Your task to perform on an android device: What's the news in Ecuador? Image 0: 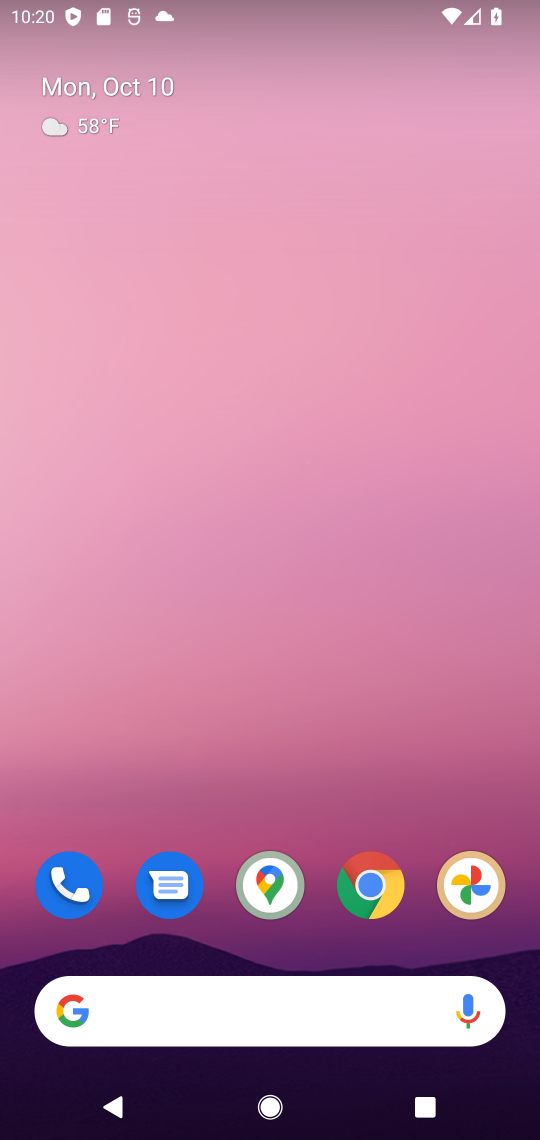
Step 0: click (367, 880)
Your task to perform on an android device: What's the news in Ecuador? Image 1: 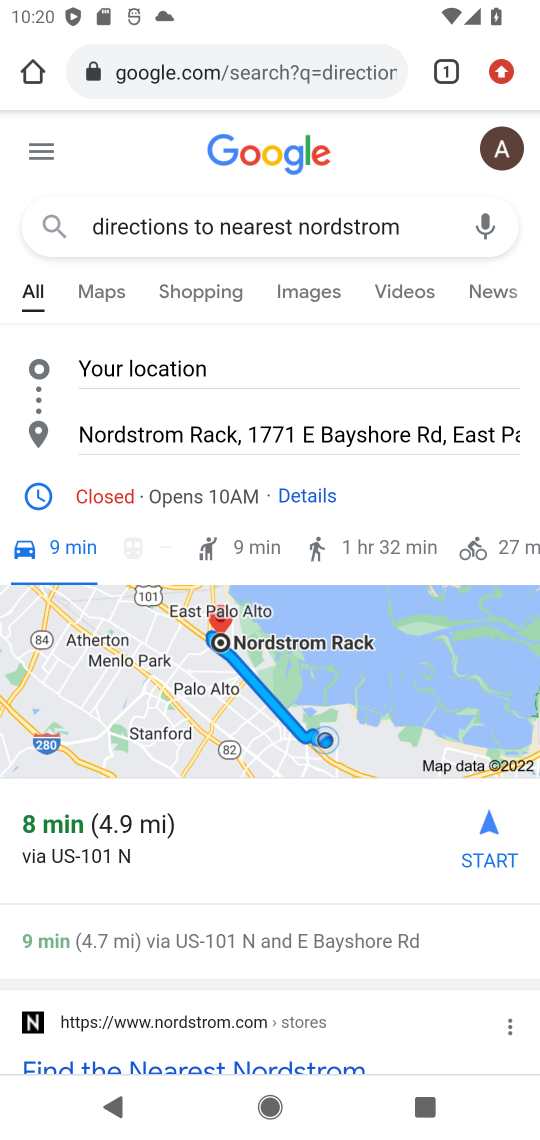
Step 1: click (248, 82)
Your task to perform on an android device: What's the news in Ecuador? Image 2: 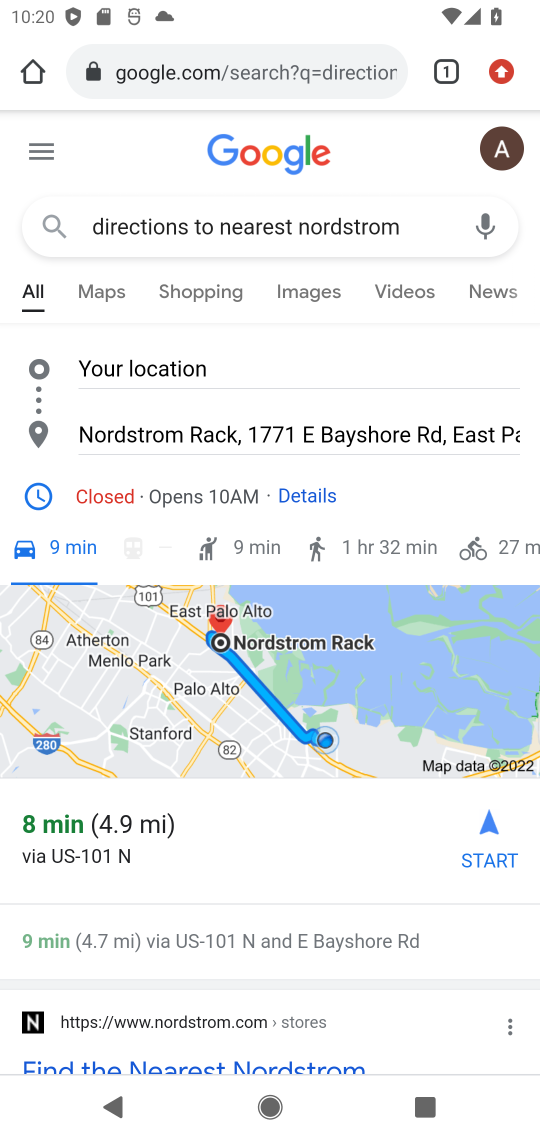
Step 2: click (356, 71)
Your task to perform on an android device: What's the news in Ecuador? Image 3: 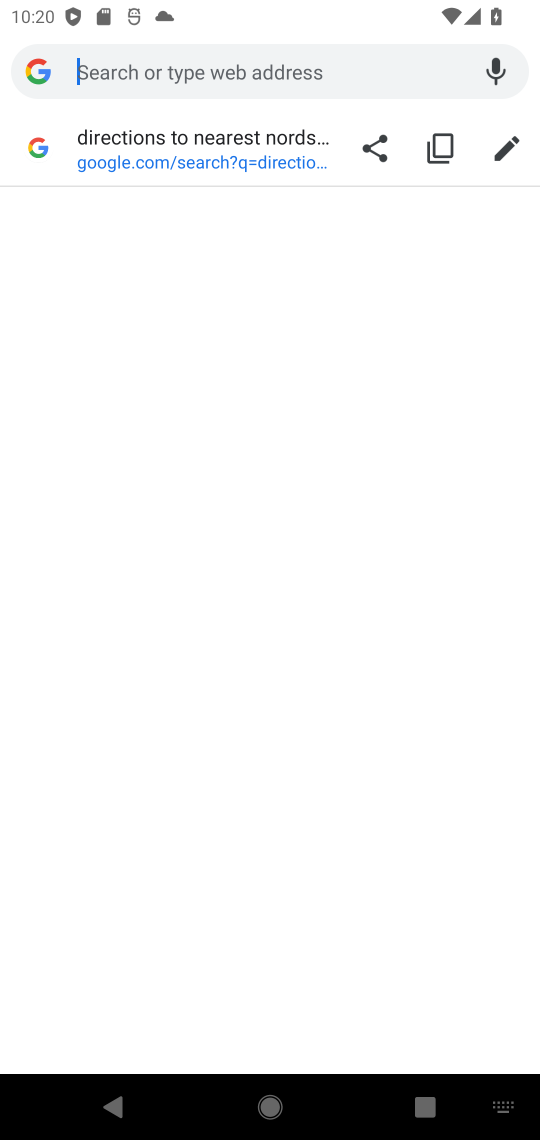
Step 3: click (195, 61)
Your task to perform on an android device: What's the news in Ecuador? Image 4: 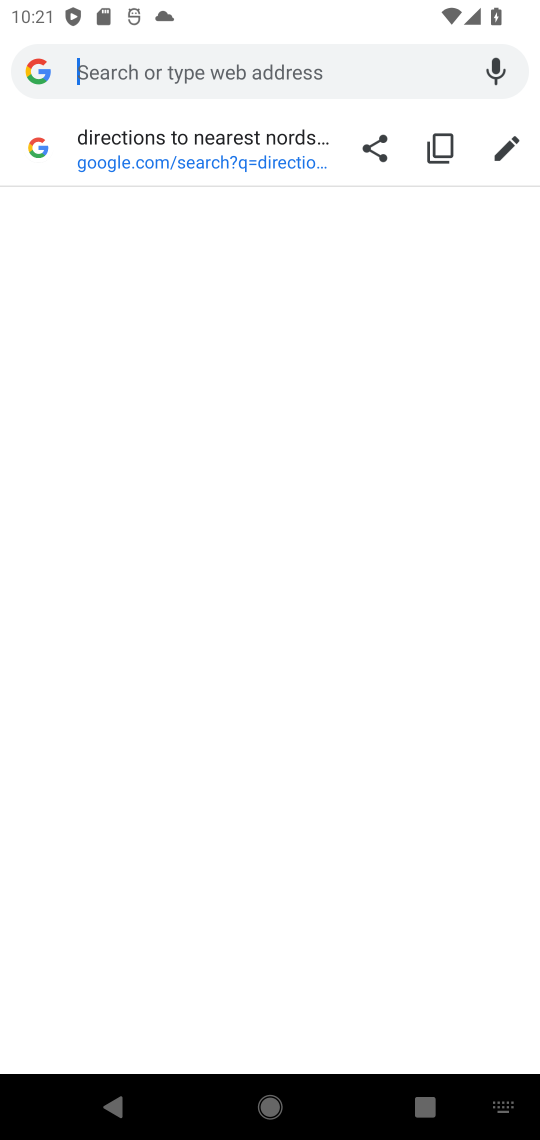
Step 4: type "news in ecuador"
Your task to perform on an android device: What's the news in Ecuador? Image 5: 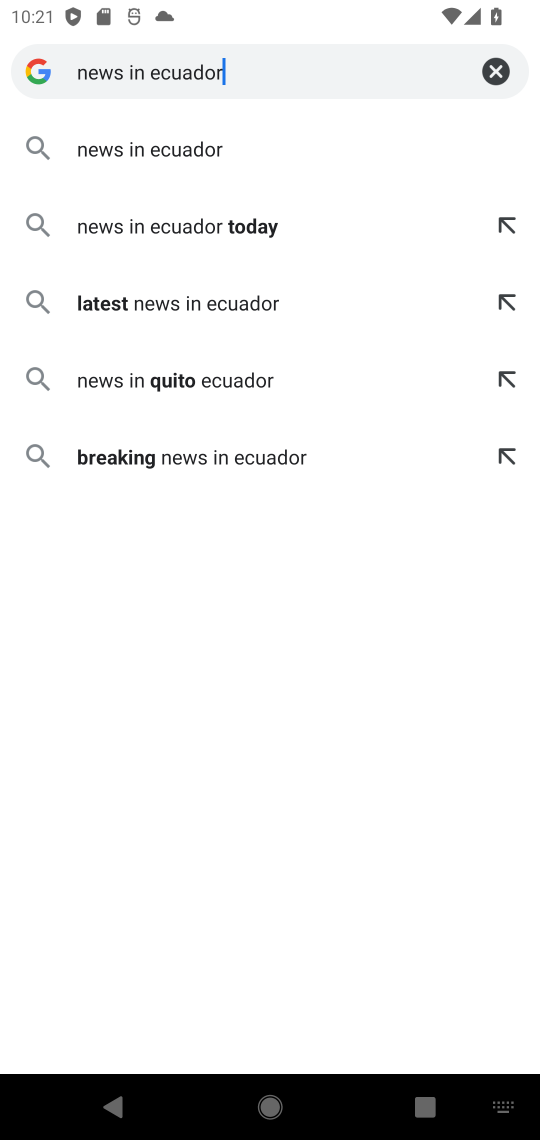
Step 5: click (319, 133)
Your task to perform on an android device: What's the news in Ecuador? Image 6: 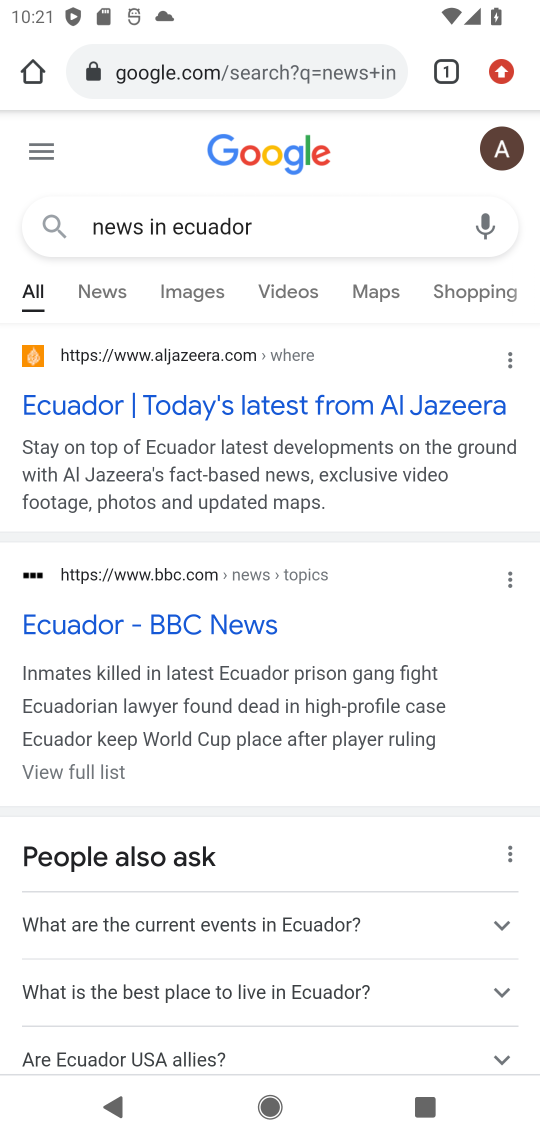
Step 6: click (100, 290)
Your task to perform on an android device: What's the news in Ecuador? Image 7: 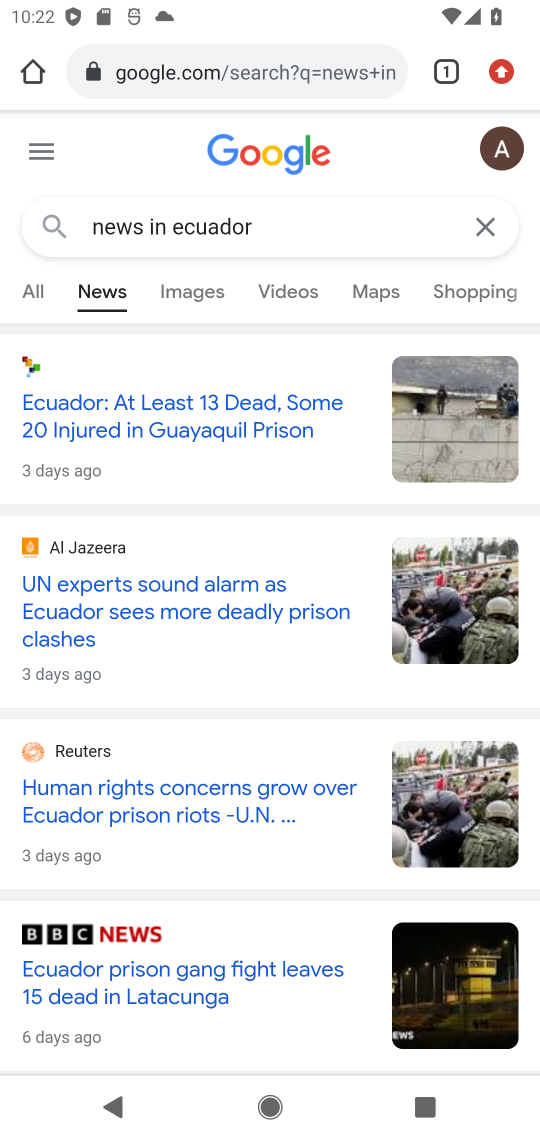
Step 7: task complete